Your task to perform on an android device: see sites visited before in the chrome app Image 0: 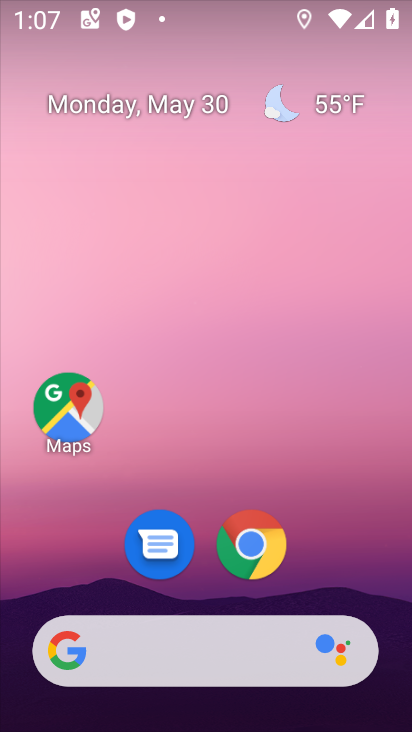
Step 0: click (267, 540)
Your task to perform on an android device: see sites visited before in the chrome app Image 1: 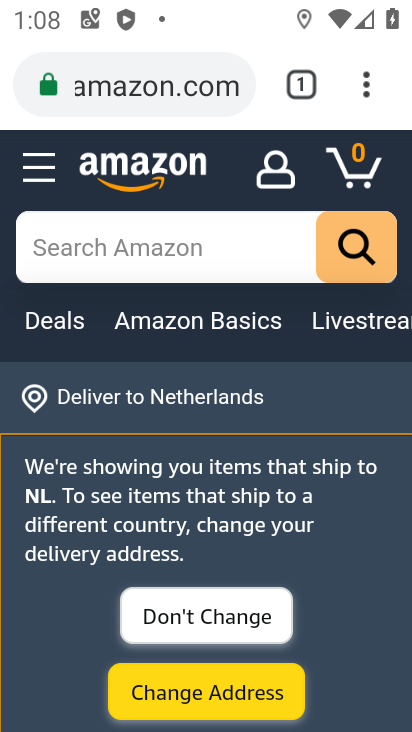
Step 1: click (383, 76)
Your task to perform on an android device: see sites visited before in the chrome app Image 2: 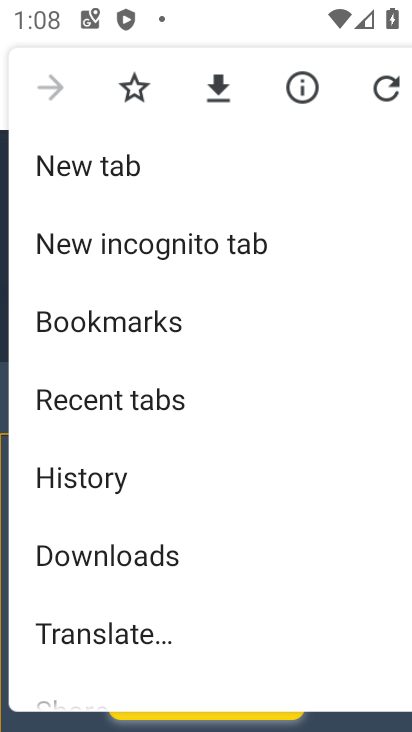
Step 2: click (104, 473)
Your task to perform on an android device: see sites visited before in the chrome app Image 3: 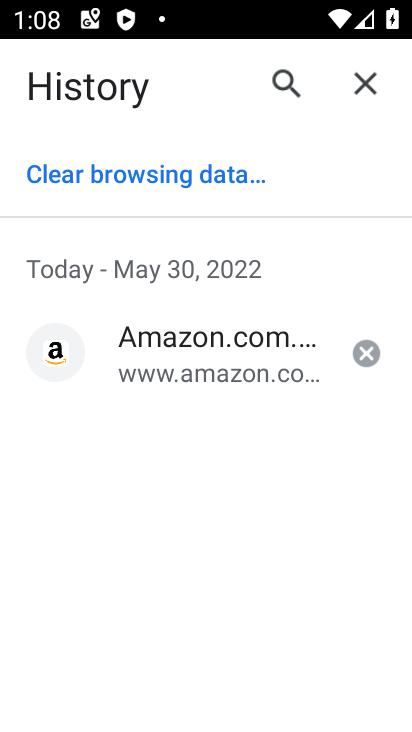
Step 3: task complete